Your task to perform on an android device: Open network settings Image 0: 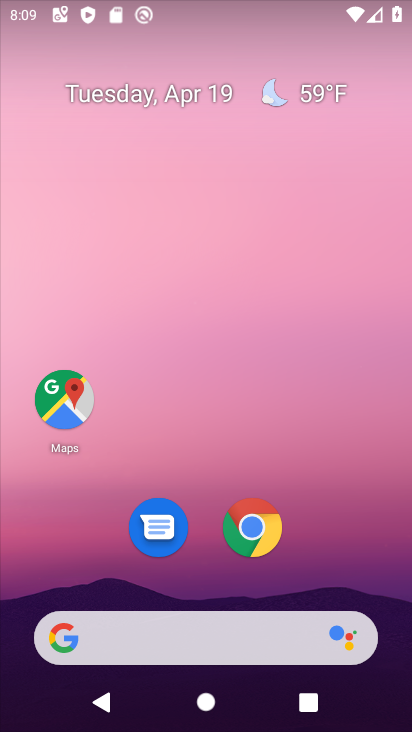
Step 0: drag from (217, 592) to (203, 108)
Your task to perform on an android device: Open network settings Image 1: 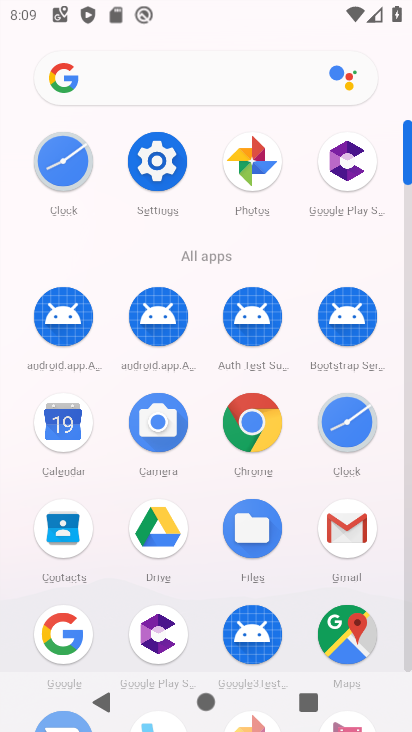
Step 1: click (173, 146)
Your task to perform on an android device: Open network settings Image 2: 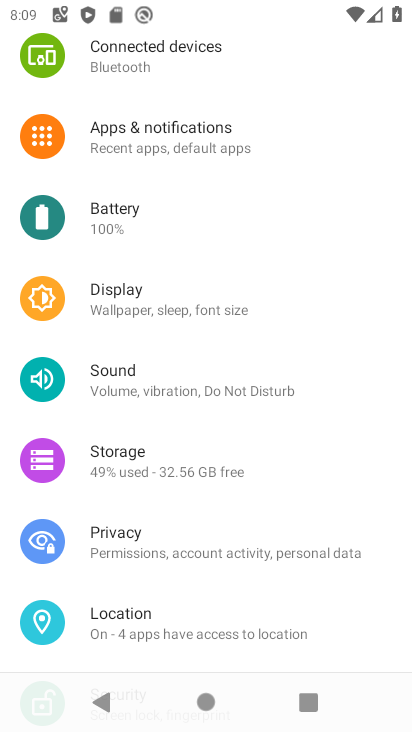
Step 2: drag from (233, 208) to (246, 587)
Your task to perform on an android device: Open network settings Image 3: 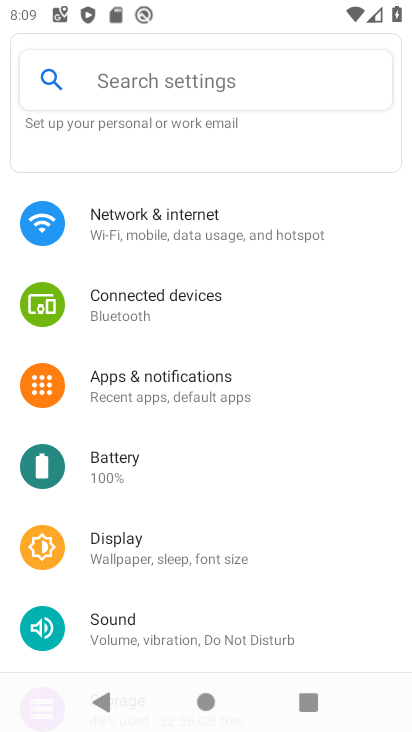
Step 3: click (192, 211)
Your task to perform on an android device: Open network settings Image 4: 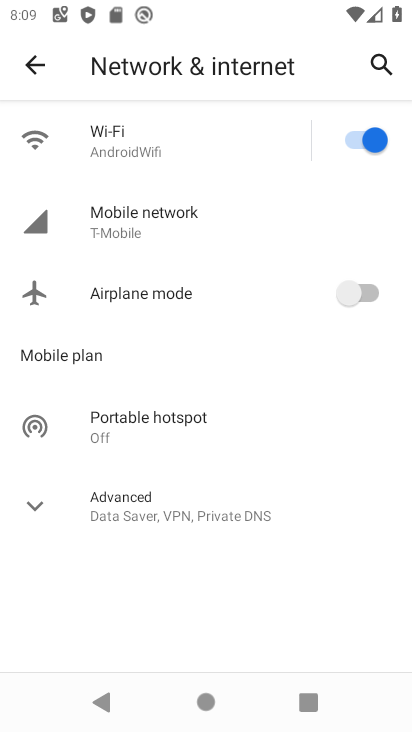
Step 4: task complete